Your task to perform on an android device: delete a single message in the gmail app Image 0: 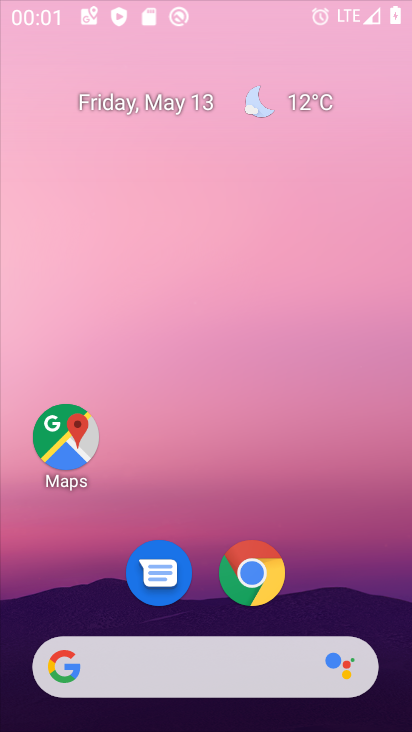
Step 0: drag from (201, 725) to (370, 71)
Your task to perform on an android device: delete a single message in the gmail app Image 1: 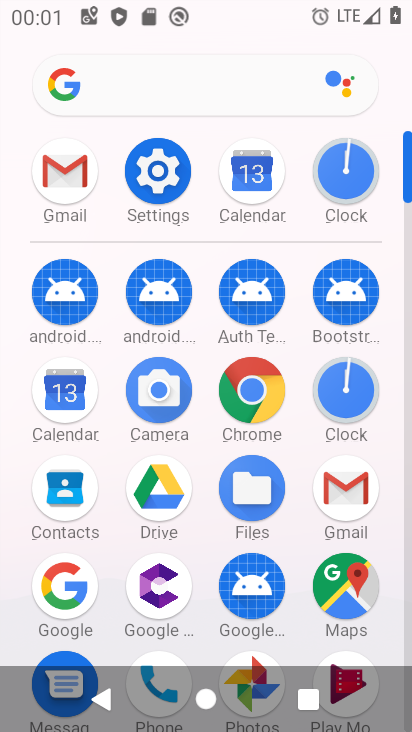
Step 1: click (143, 163)
Your task to perform on an android device: delete a single message in the gmail app Image 2: 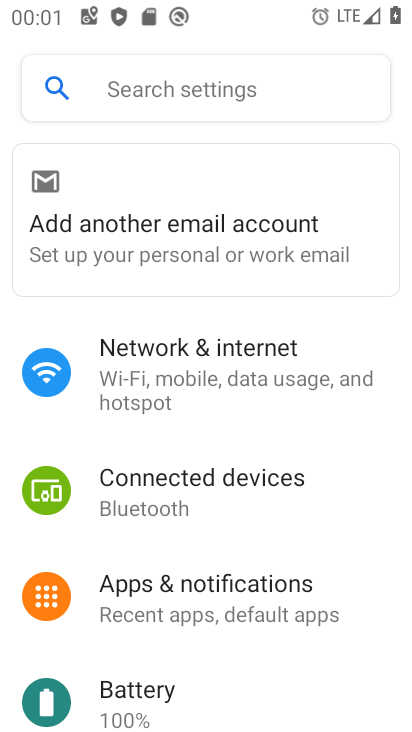
Step 2: press home button
Your task to perform on an android device: delete a single message in the gmail app Image 3: 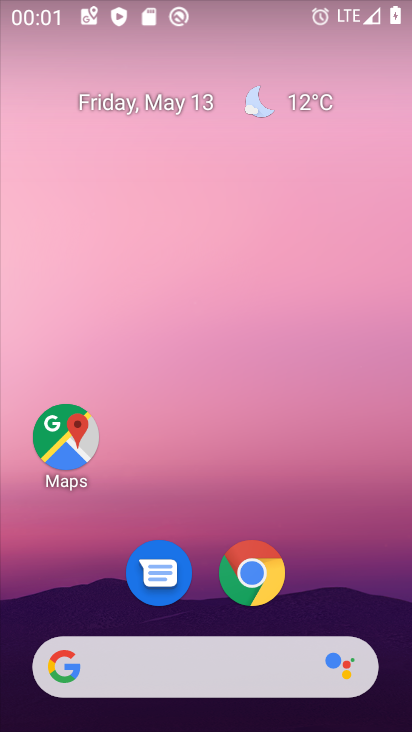
Step 3: drag from (199, 718) to (363, 139)
Your task to perform on an android device: delete a single message in the gmail app Image 4: 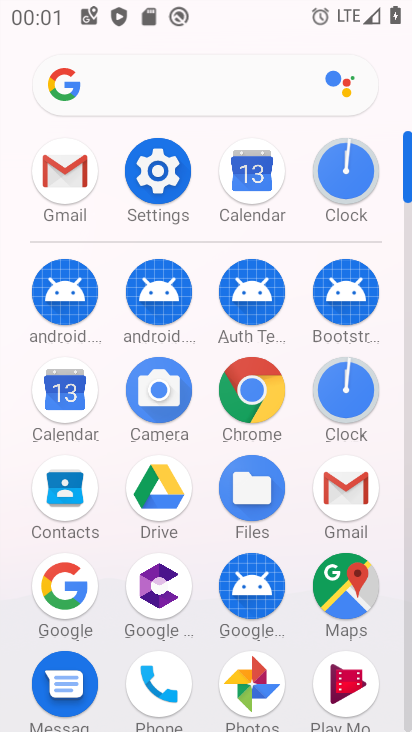
Step 4: click (53, 178)
Your task to perform on an android device: delete a single message in the gmail app Image 5: 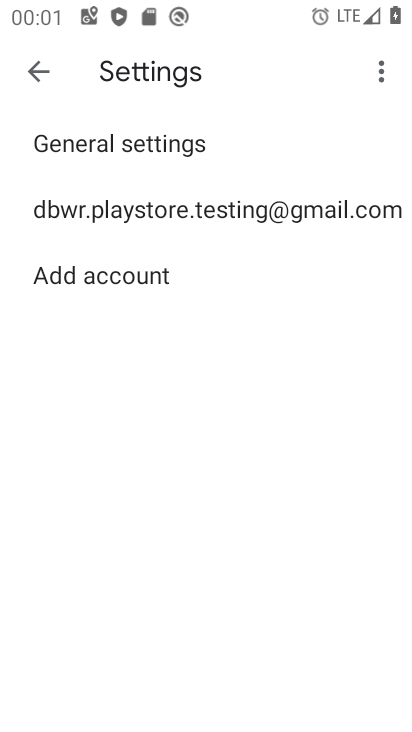
Step 5: click (139, 204)
Your task to perform on an android device: delete a single message in the gmail app Image 6: 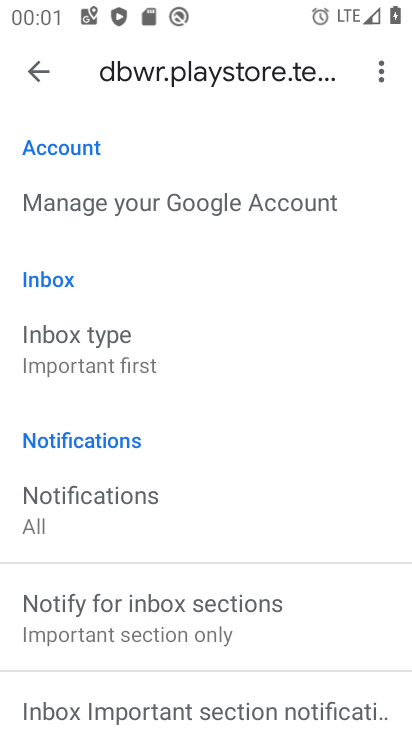
Step 6: click (40, 62)
Your task to perform on an android device: delete a single message in the gmail app Image 7: 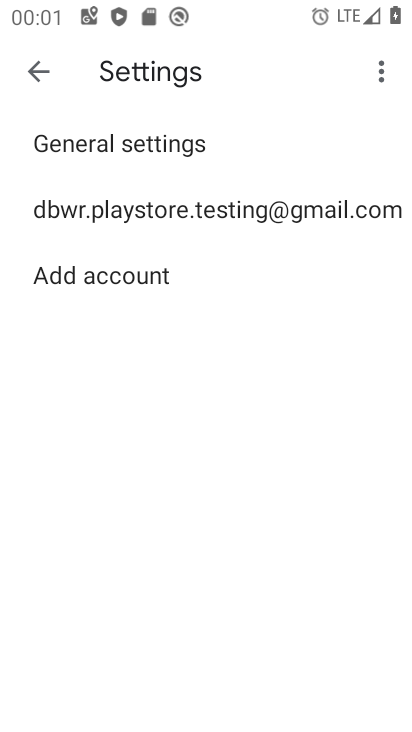
Step 7: click (51, 47)
Your task to perform on an android device: delete a single message in the gmail app Image 8: 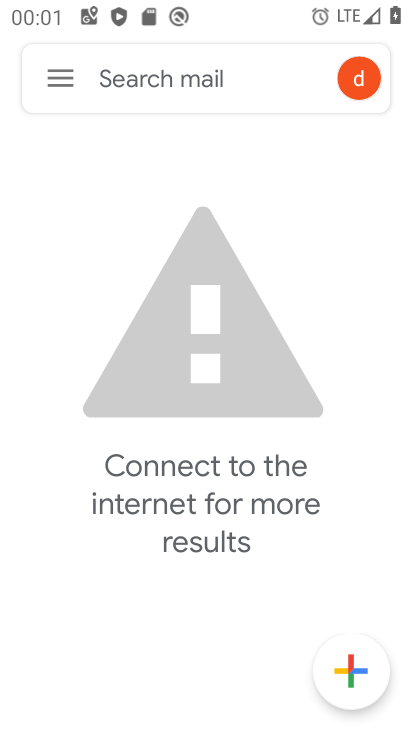
Step 8: click (64, 85)
Your task to perform on an android device: delete a single message in the gmail app Image 9: 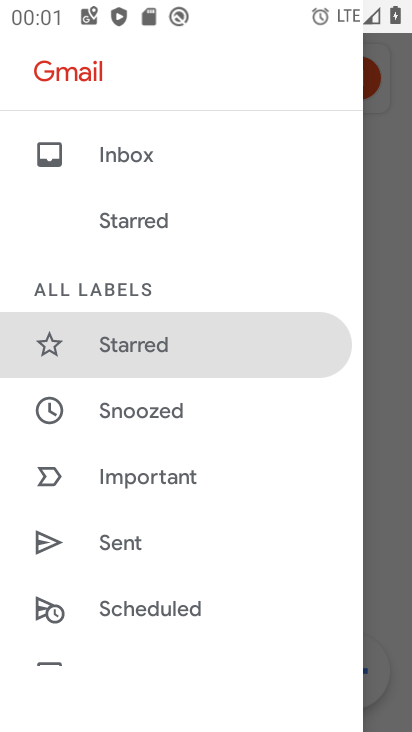
Step 9: drag from (117, 613) to (211, 333)
Your task to perform on an android device: delete a single message in the gmail app Image 10: 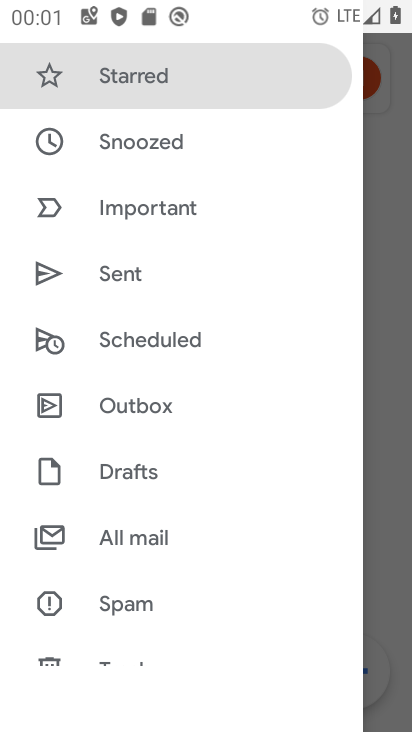
Step 10: click (116, 555)
Your task to perform on an android device: delete a single message in the gmail app Image 11: 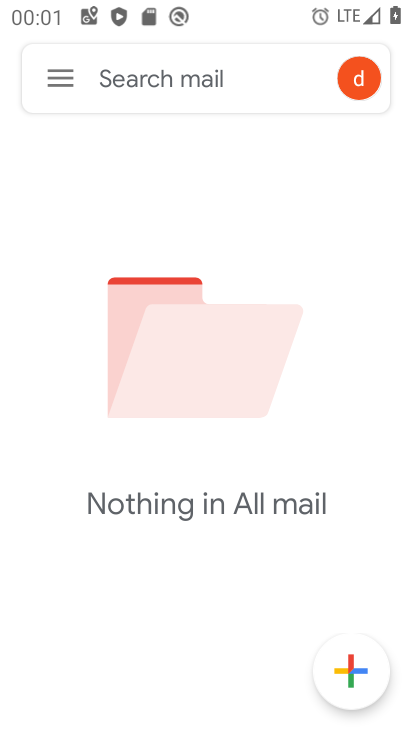
Step 11: task complete